Your task to perform on an android device: Open settings on Google Maps Image 0: 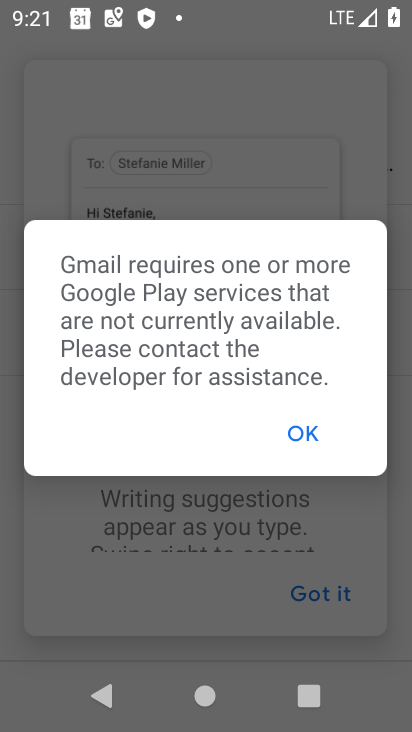
Step 0: press home button
Your task to perform on an android device: Open settings on Google Maps Image 1: 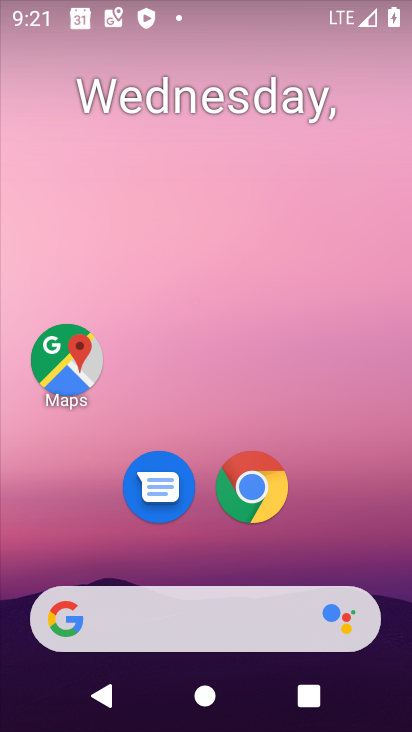
Step 1: drag from (259, 639) to (210, 184)
Your task to perform on an android device: Open settings on Google Maps Image 2: 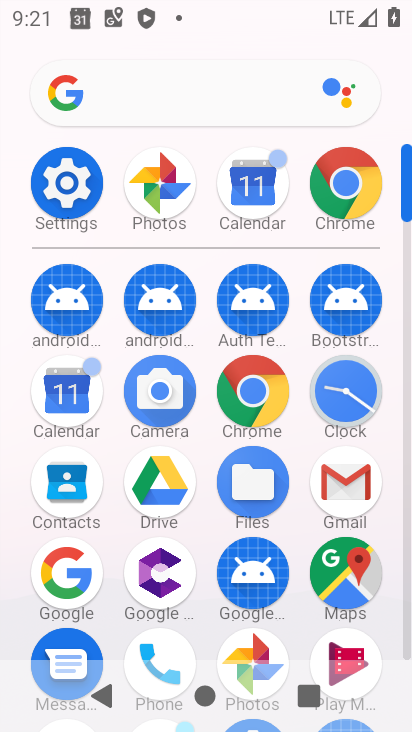
Step 2: drag from (120, 530) to (96, 418)
Your task to perform on an android device: Open settings on Google Maps Image 3: 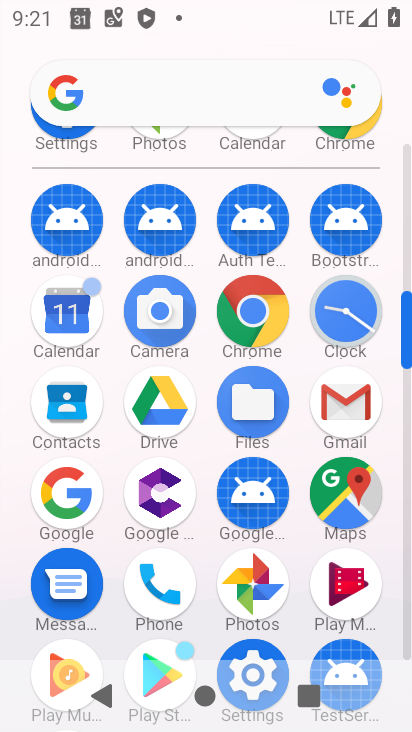
Step 3: click (351, 484)
Your task to perform on an android device: Open settings on Google Maps Image 4: 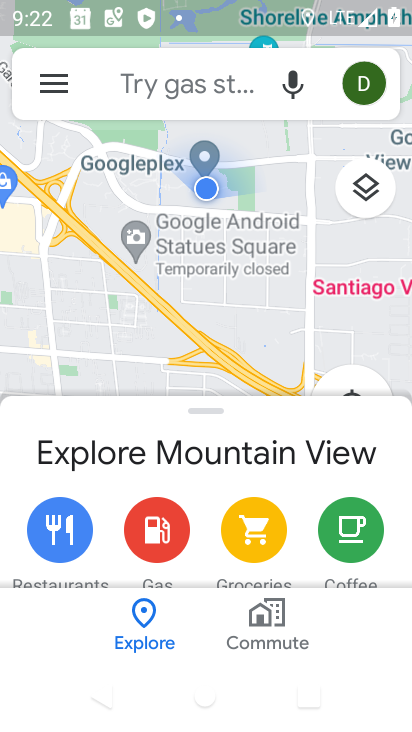
Step 4: click (34, 79)
Your task to perform on an android device: Open settings on Google Maps Image 5: 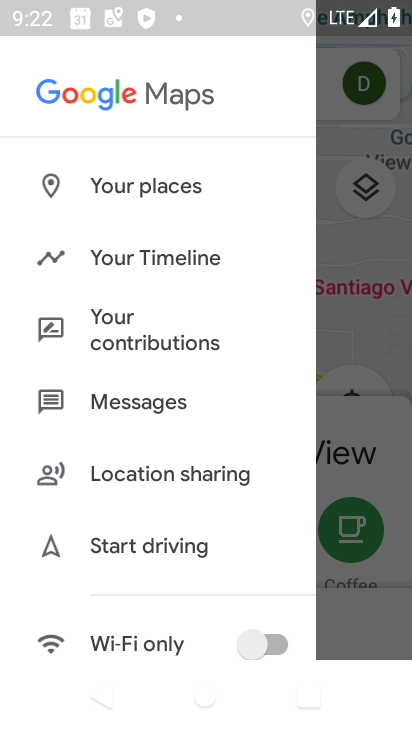
Step 5: drag from (180, 502) to (198, 255)
Your task to perform on an android device: Open settings on Google Maps Image 6: 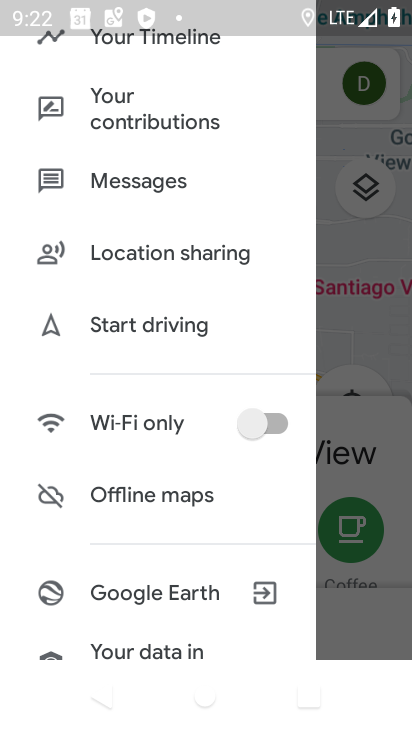
Step 6: drag from (150, 537) to (172, 229)
Your task to perform on an android device: Open settings on Google Maps Image 7: 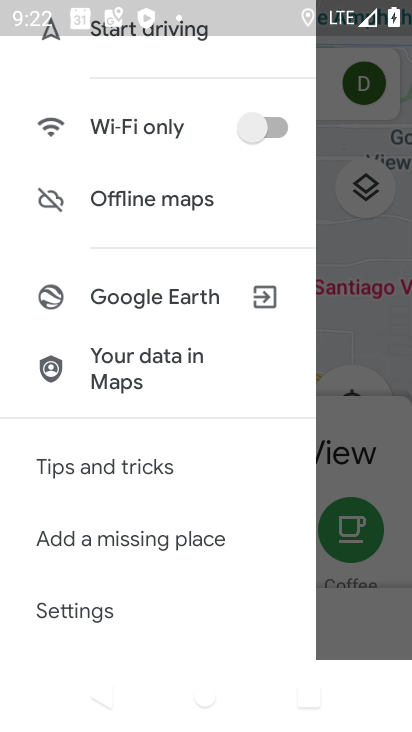
Step 7: click (116, 610)
Your task to perform on an android device: Open settings on Google Maps Image 8: 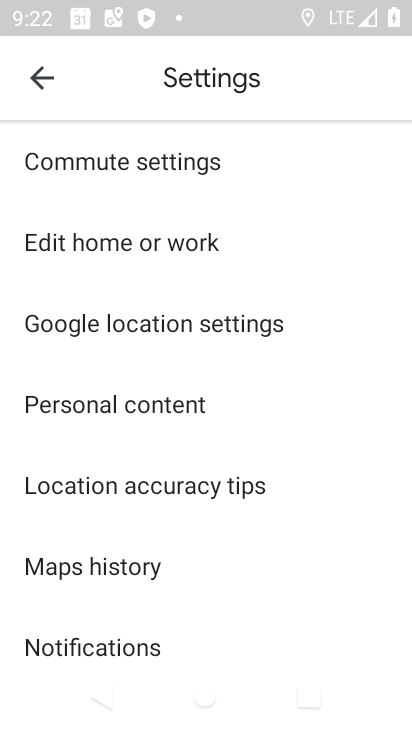
Step 8: task complete